Your task to perform on an android device: open chrome privacy settings Image 0: 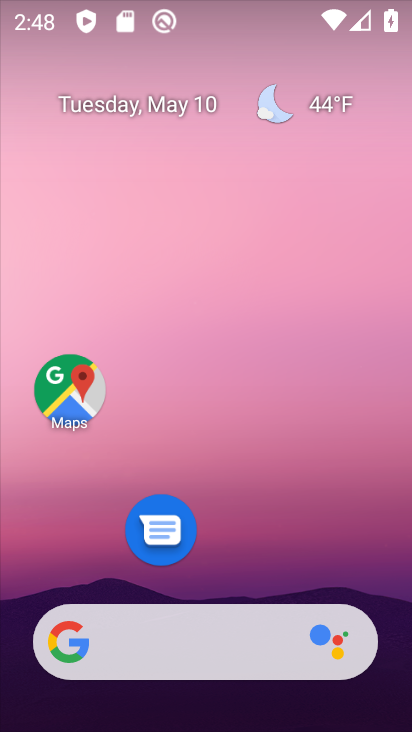
Step 0: press home button
Your task to perform on an android device: open chrome privacy settings Image 1: 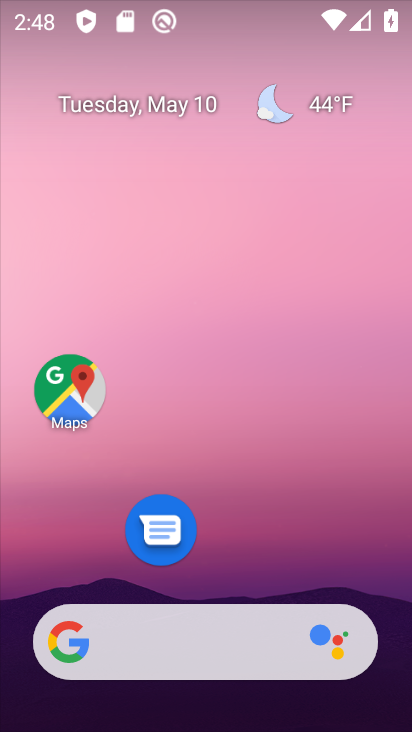
Step 1: drag from (255, 549) to (254, 16)
Your task to perform on an android device: open chrome privacy settings Image 2: 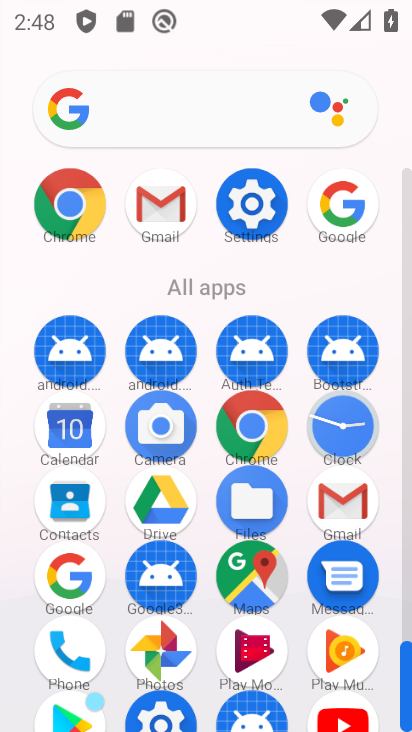
Step 2: click (67, 203)
Your task to perform on an android device: open chrome privacy settings Image 3: 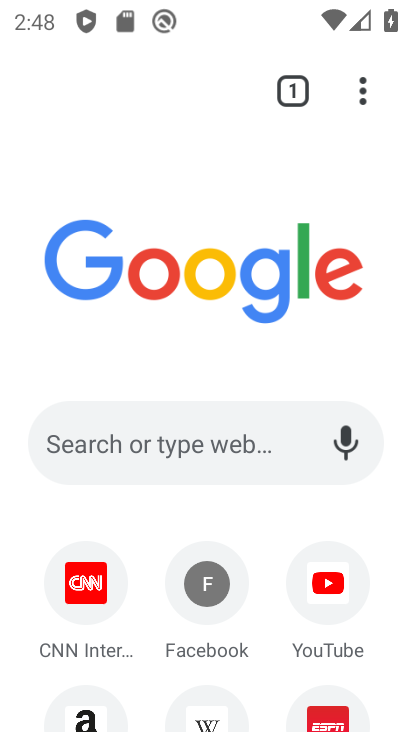
Step 3: click (352, 93)
Your task to perform on an android device: open chrome privacy settings Image 4: 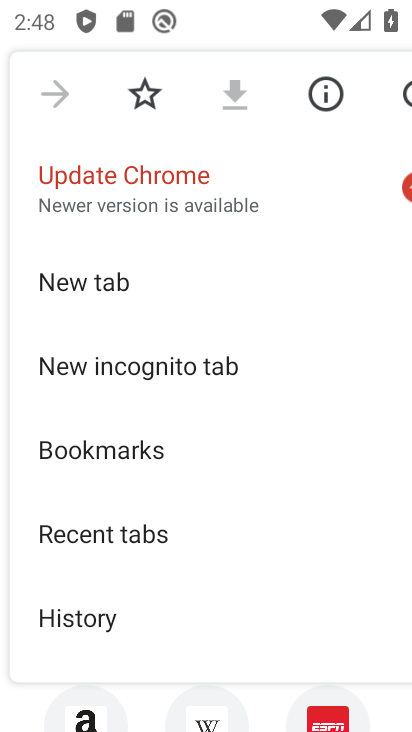
Step 4: drag from (226, 553) to (210, 115)
Your task to perform on an android device: open chrome privacy settings Image 5: 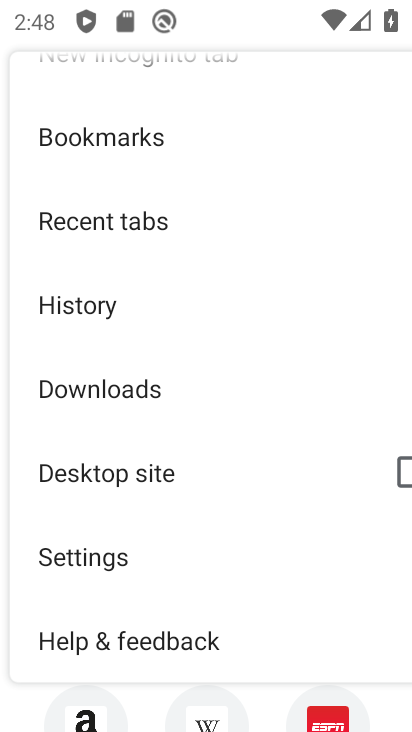
Step 5: click (115, 558)
Your task to perform on an android device: open chrome privacy settings Image 6: 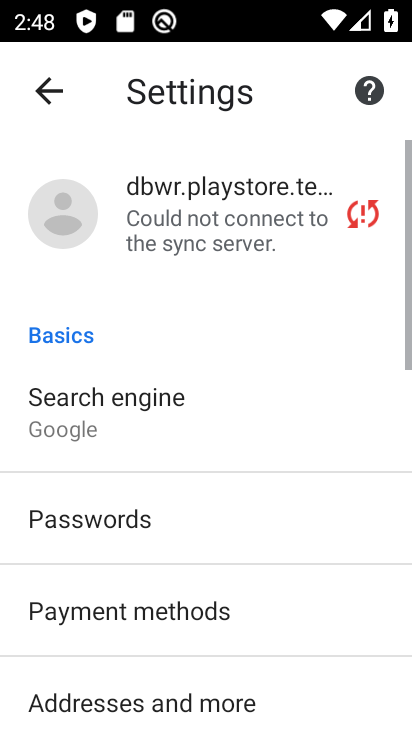
Step 6: drag from (235, 584) to (228, 93)
Your task to perform on an android device: open chrome privacy settings Image 7: 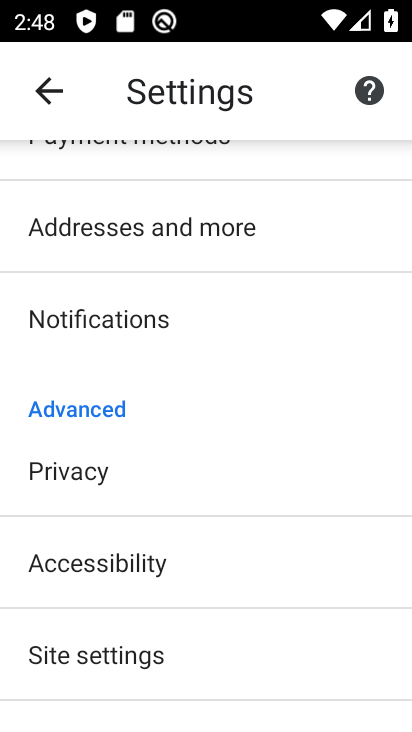
Step 7: click (99, 479)
Your task to perform on an android device: open chrome privacy settings Image 8: 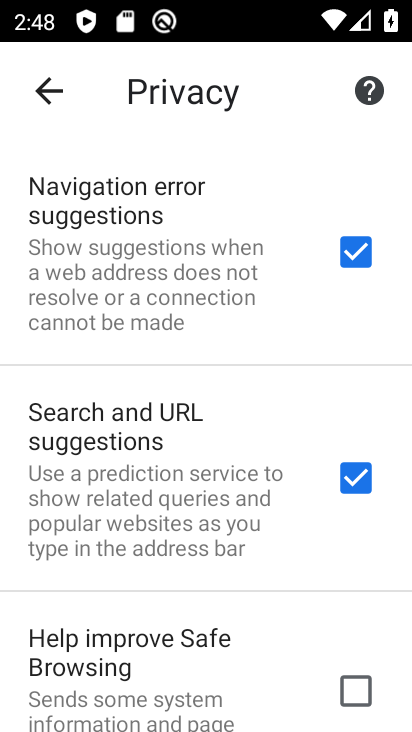
Step 8: task complete